Your task to perform on an android device: What is the recent news? Image 0: 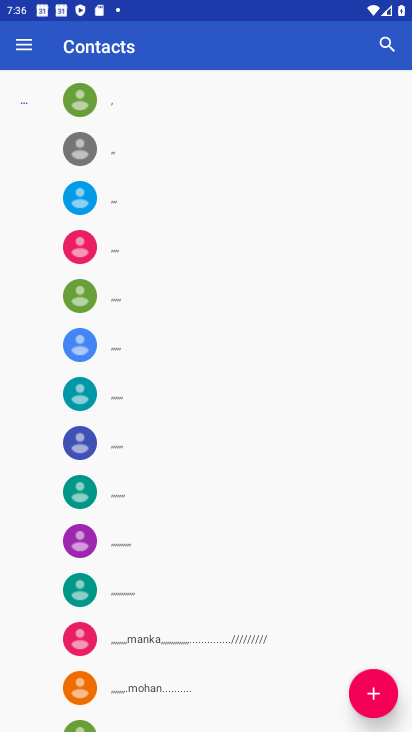
Step 0: press home button
Your task to perform on an android device: What is the recent news? Image 1: 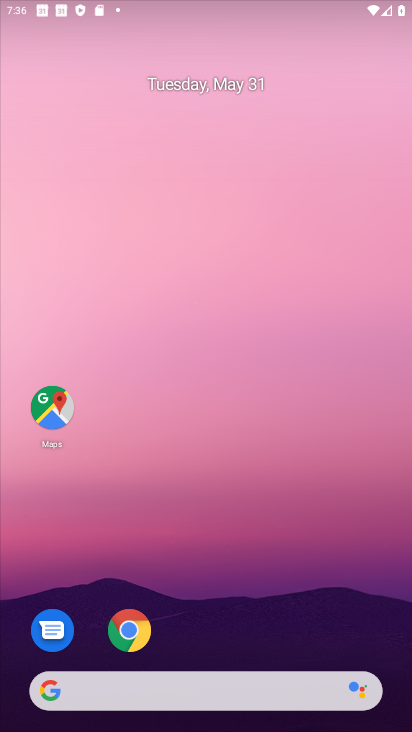
Step 1: drag from (261, 599) to (235, 195)
Your task to perform on an android device: What is the recent news? Image 2: 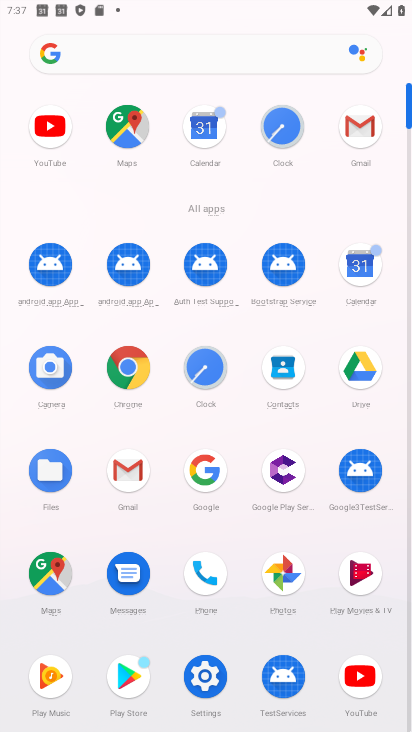
Step 2: click (130, 365)
Your task to perform on an android device: What is the recent news? Image 3: 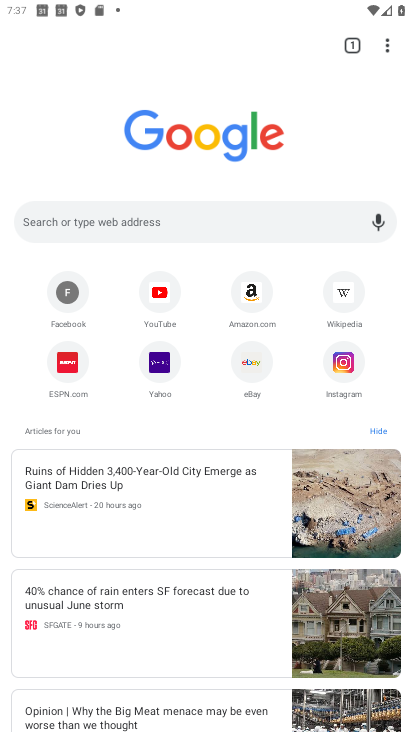
Step 3: click (198, 221)
Your task to perform on an android device: What is the recent news? Image 4: 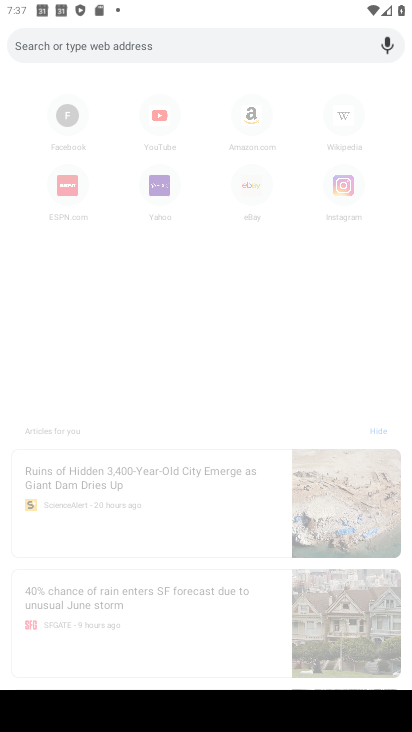
Step 4: type "What is the recent news?"
Your task to perform on an android device: What is the recent news? Image 5: 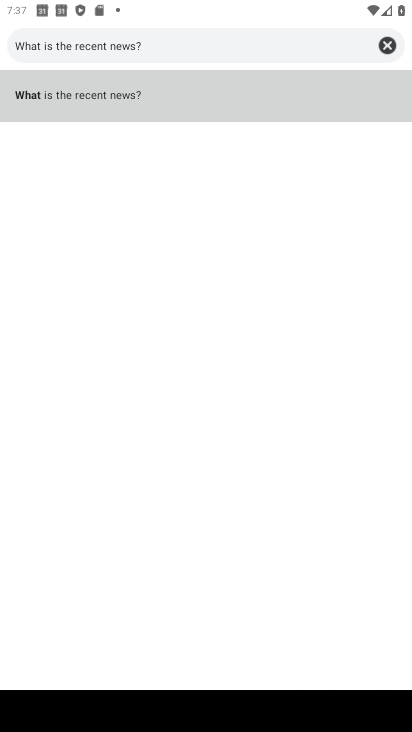
Step 5: click (56, 91)
Your task to perform on an android device: What is the recent news? Image 6: 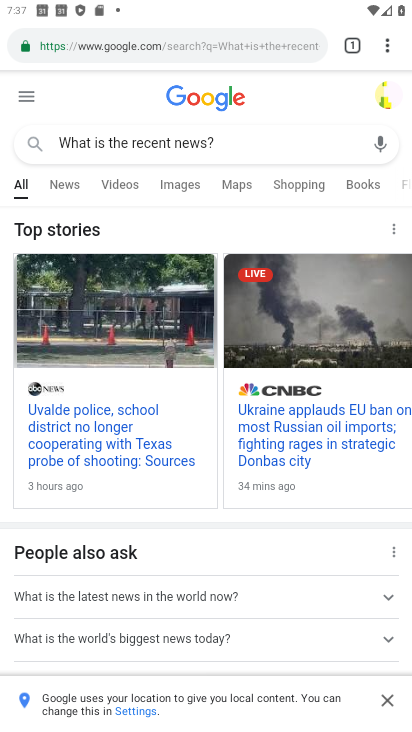
Step 6: task complete